Your task to perform on an android device: Do I have any events today? Image 0: 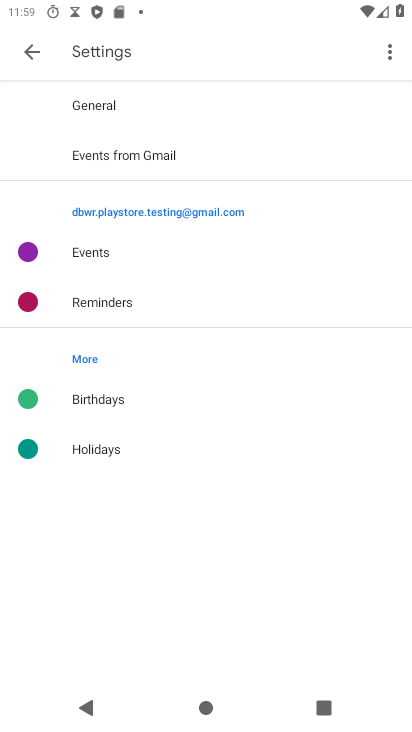
Step 0: press home button
Your task to perform on an android device: Do I have any events today? Image 1: 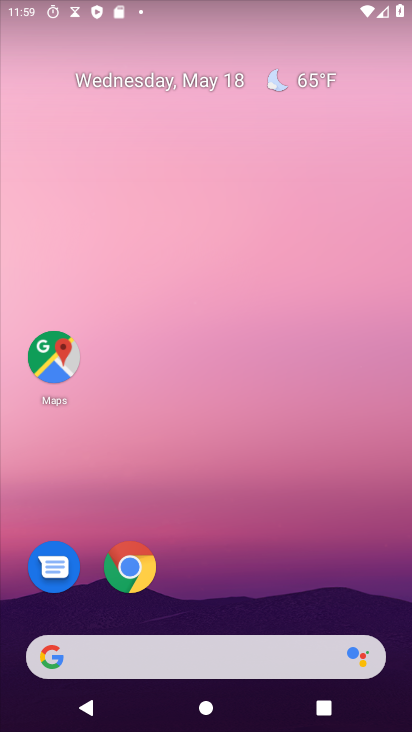
Step 1: click (134, 81)
Your task to perform on an android device: Do I have any events today? Image 2: 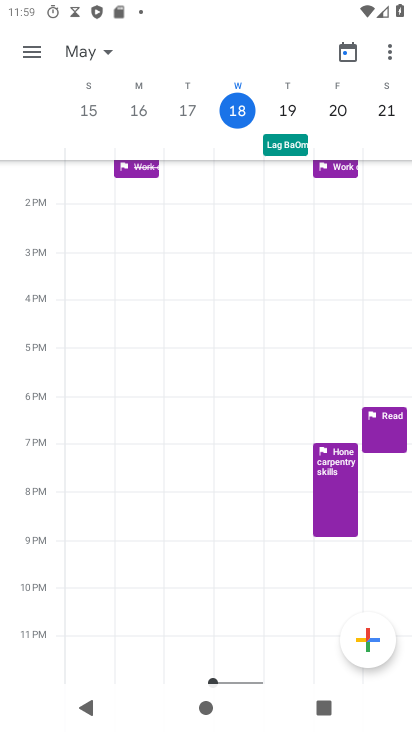
Step 2: click (36, 58)
Your task to perform on an android device: Do I have any events today? Image 3: 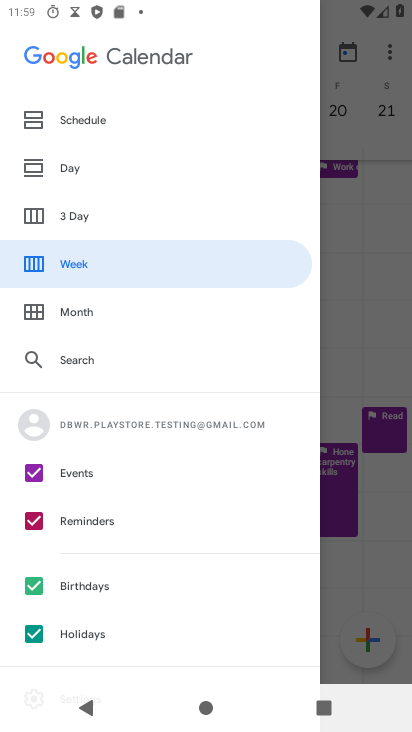
Step 3: drag from (169, 550) to (156, 352)
Your task to perform on an android device: Do I have any events today? Image 4: 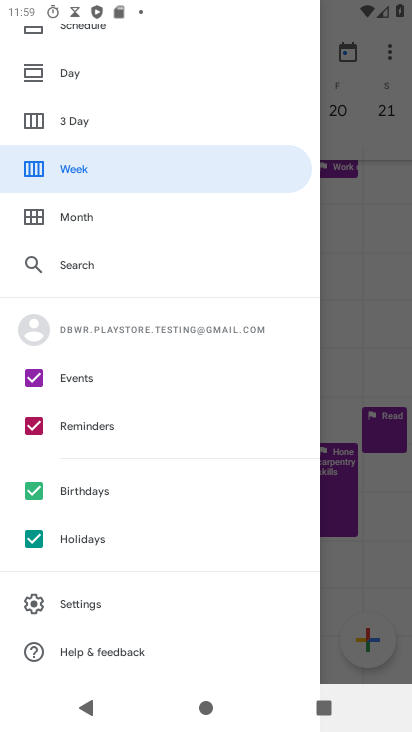
Step 4: click (35, 538)
Your task to perform on an android device: Do I have any events today? Image 5: 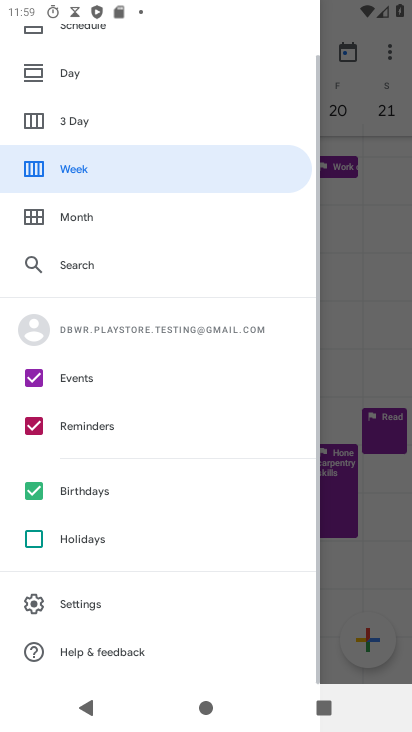
Step 5: click (38, 486)
Your task to perform on an android device: Do I have any events today? Image 6: 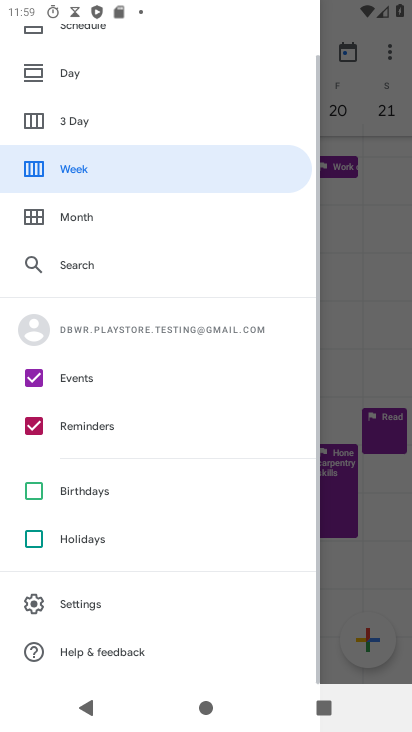
Step 6: click (31, 426)
Your task to perform on an android device: Do I have any events today? Image 7: 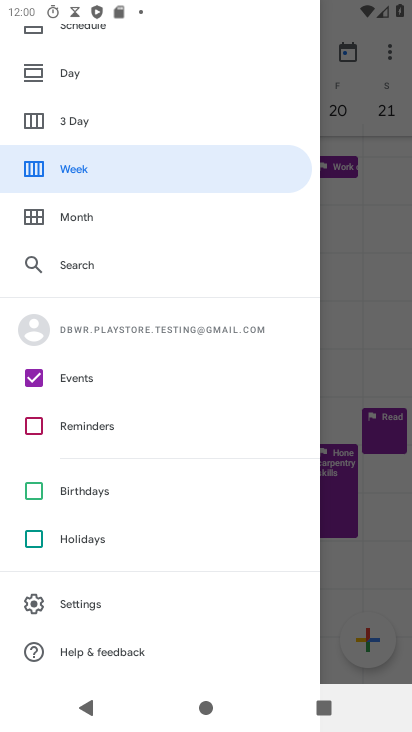
Step 7: click (389, 309)
Your task to perform on an android device: Do I have any events today? Image 8: 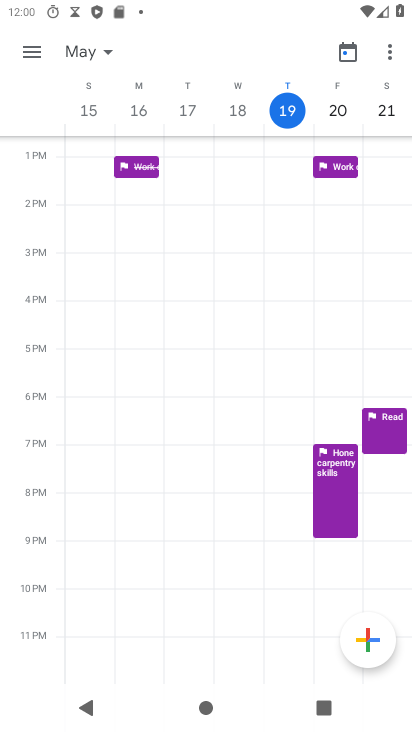
Step 8: click (34, 50)
Your task to perform on an android device: Do I have any events today? Image 9: 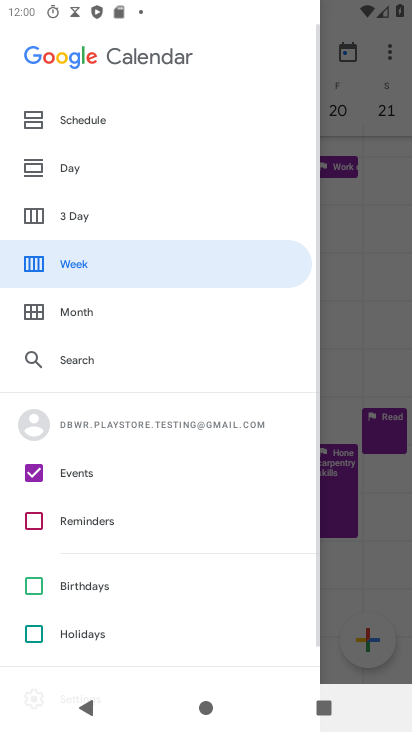
Step 9: click (113, 117)
Your task to perform on an android device: Do I have any events today? Image 10: 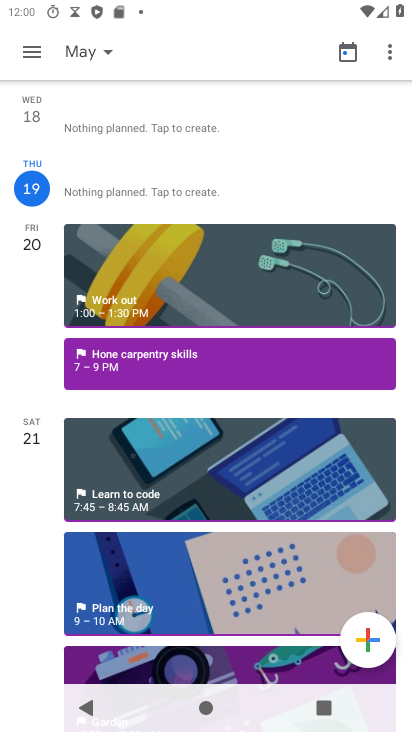
Step 10: task complete